Your task to perform on an android device: Open Android settings Image 0: 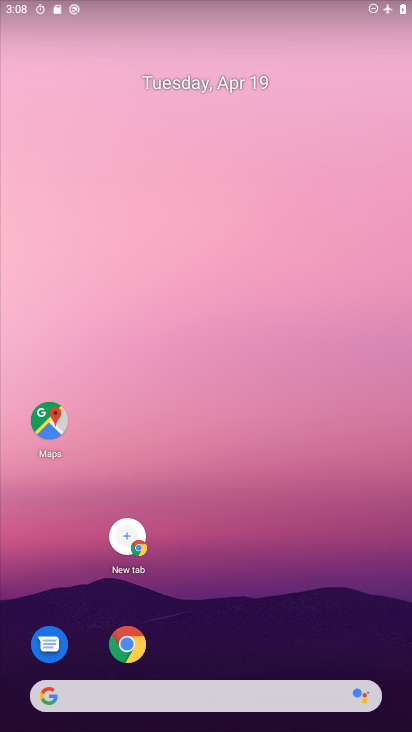
Step 0: drag from (177, 539) to (77, 145)
Your task to perform on an android device: Open Android settings Image 1: 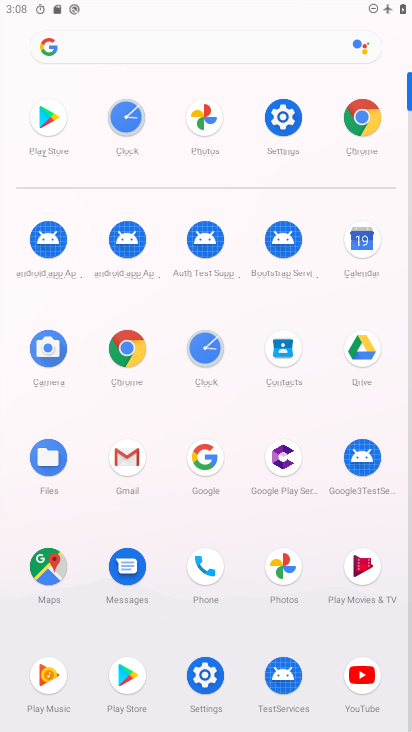
Step 1: click (285, 122)
Your task to perform on an android device: Open Android settings Image 2: 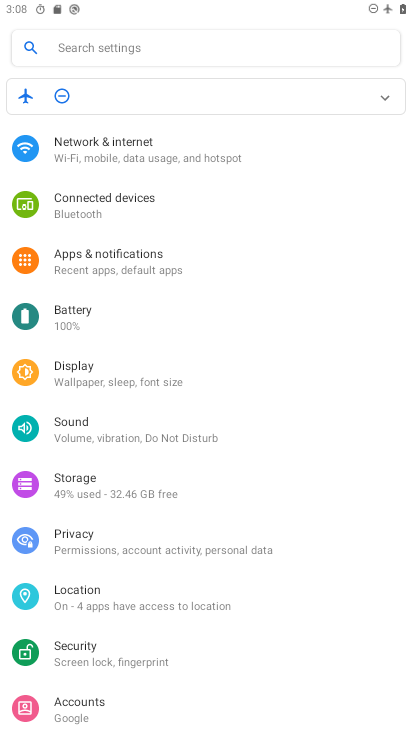
Step 2: drag from (118, 683) to (143, 320)
Your task to perform on an android device: Open Android settings Image 3: 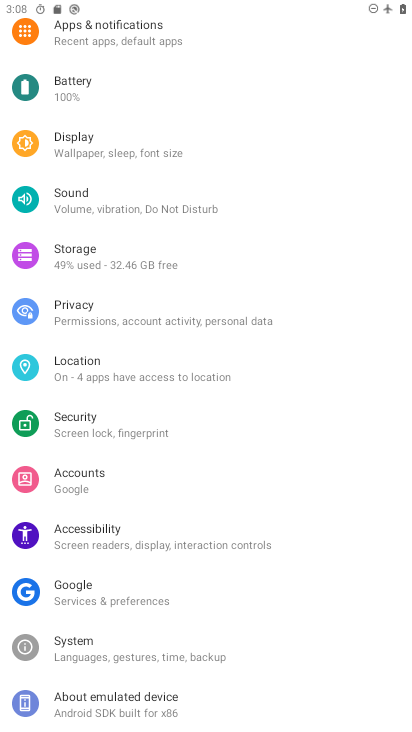
Step 3: click (109, 695)
Your task to perform on an android device: Open Android settings Image 4: 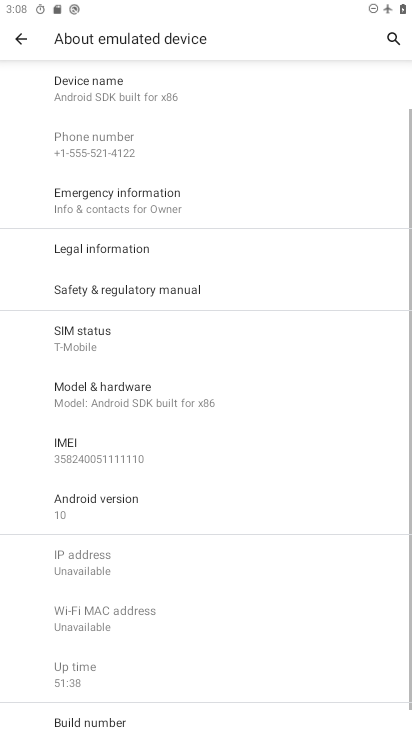
Step 4: click (97, 519)
Your task to perform on an android device: Open Android settings Image 5: 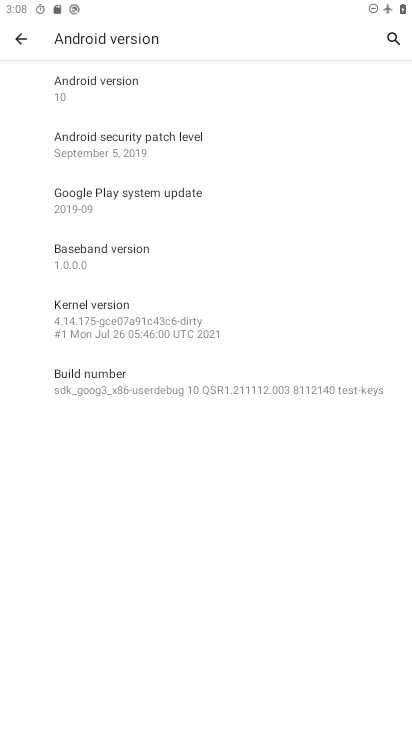
Step 5: task complete